Your task to perform on an android device: Show me productivity apps on the Play Store Image 0: 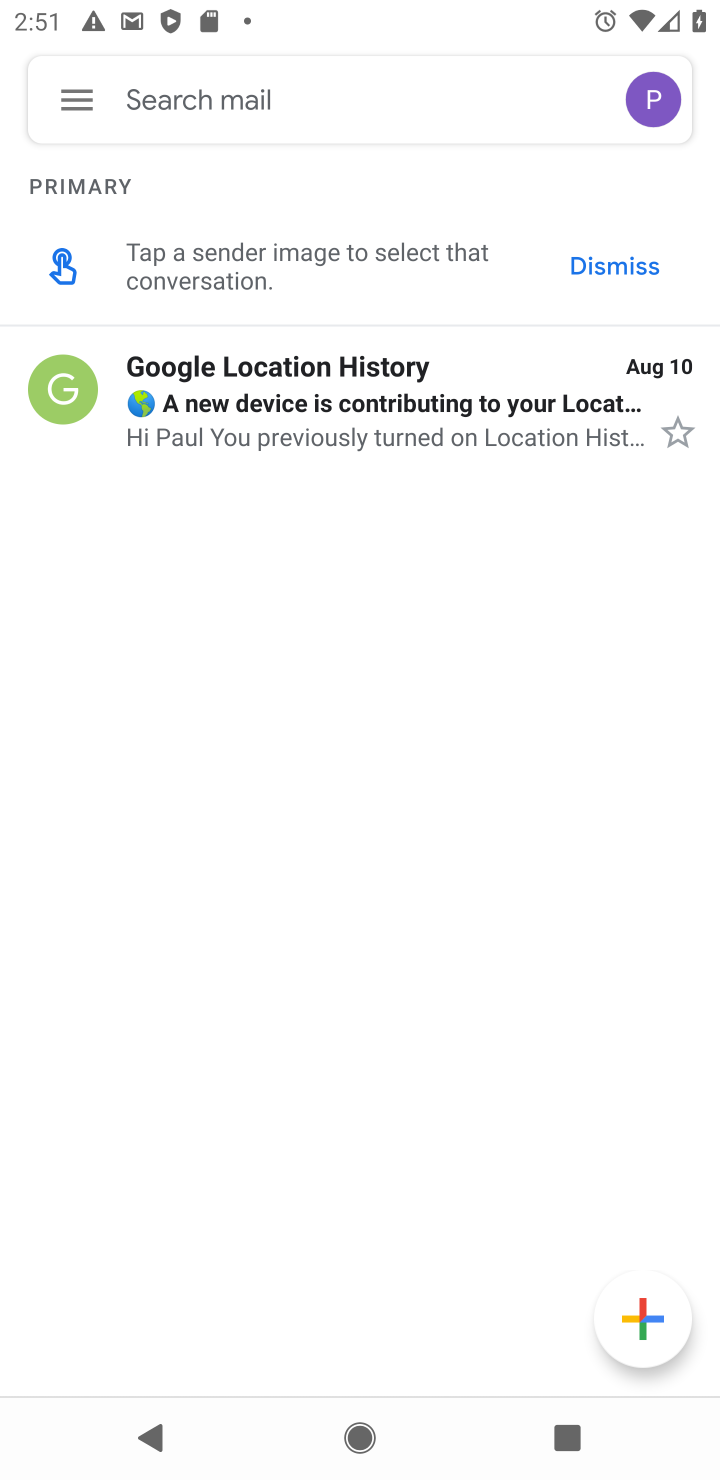
Step 0: press home button
Your task to perform on an android device: Show me productivity apps on the Play Store Image 1: 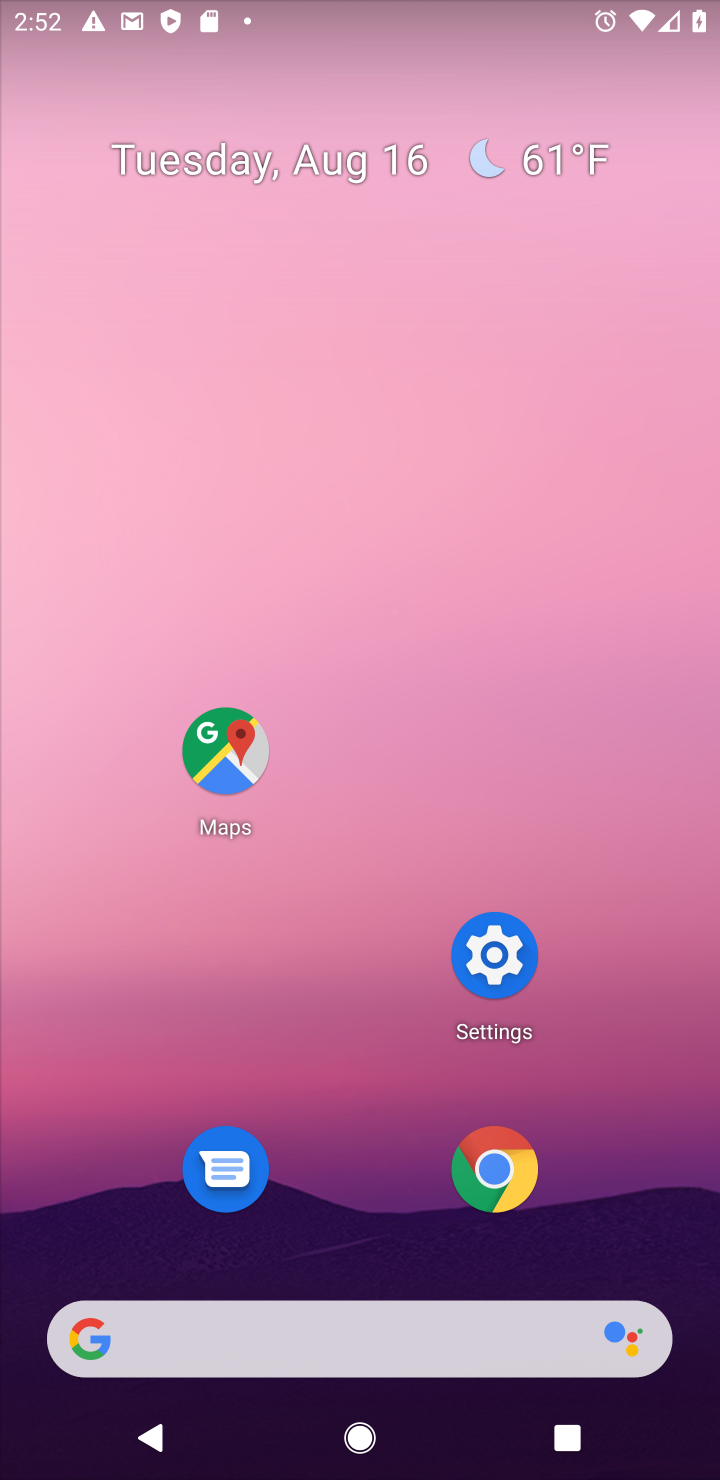
Step 1: drag from (414, 1119) to (699, 178)
Your task to perform on an android device: Show me productivity apps on the Play Store Image 2: 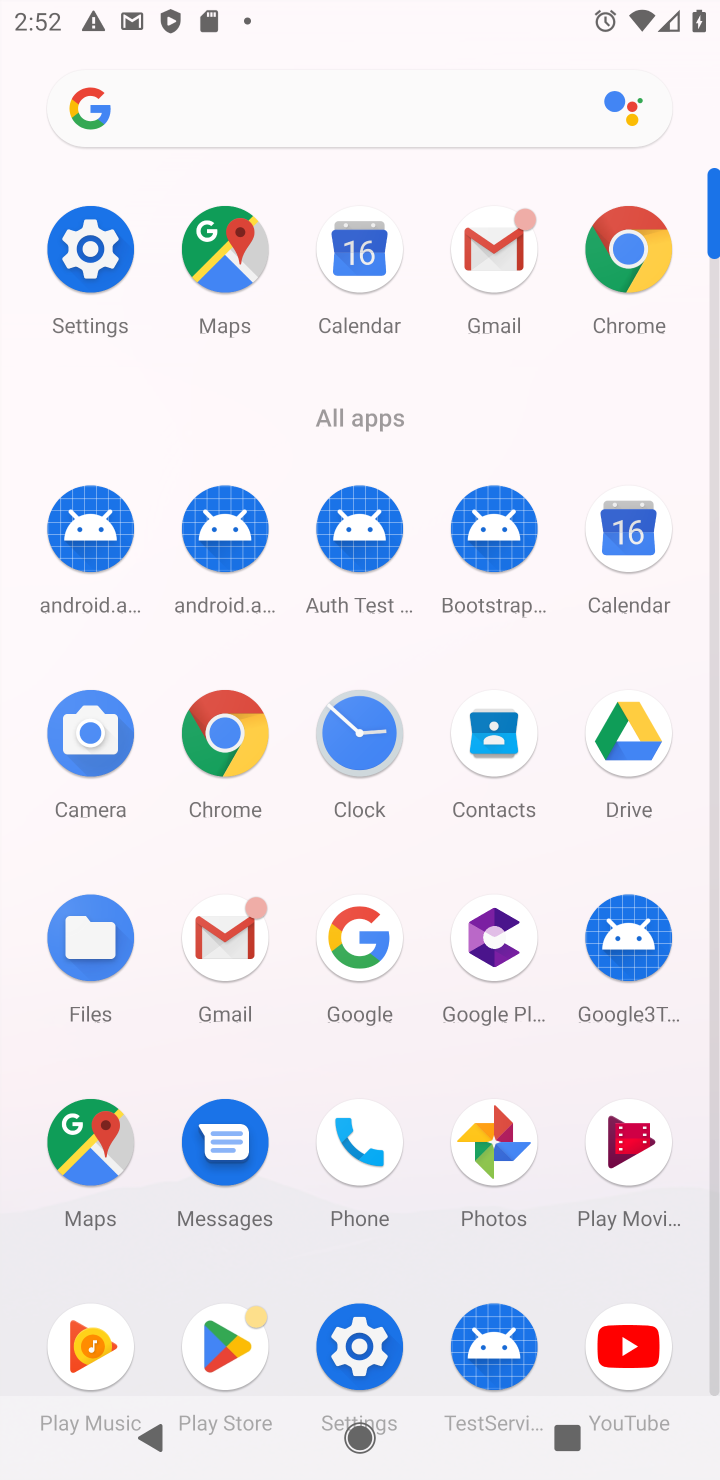
Step 2: click (221, 1336)
Your task to perform on an android device: Show me productivity apps on the Play Store Image 3: 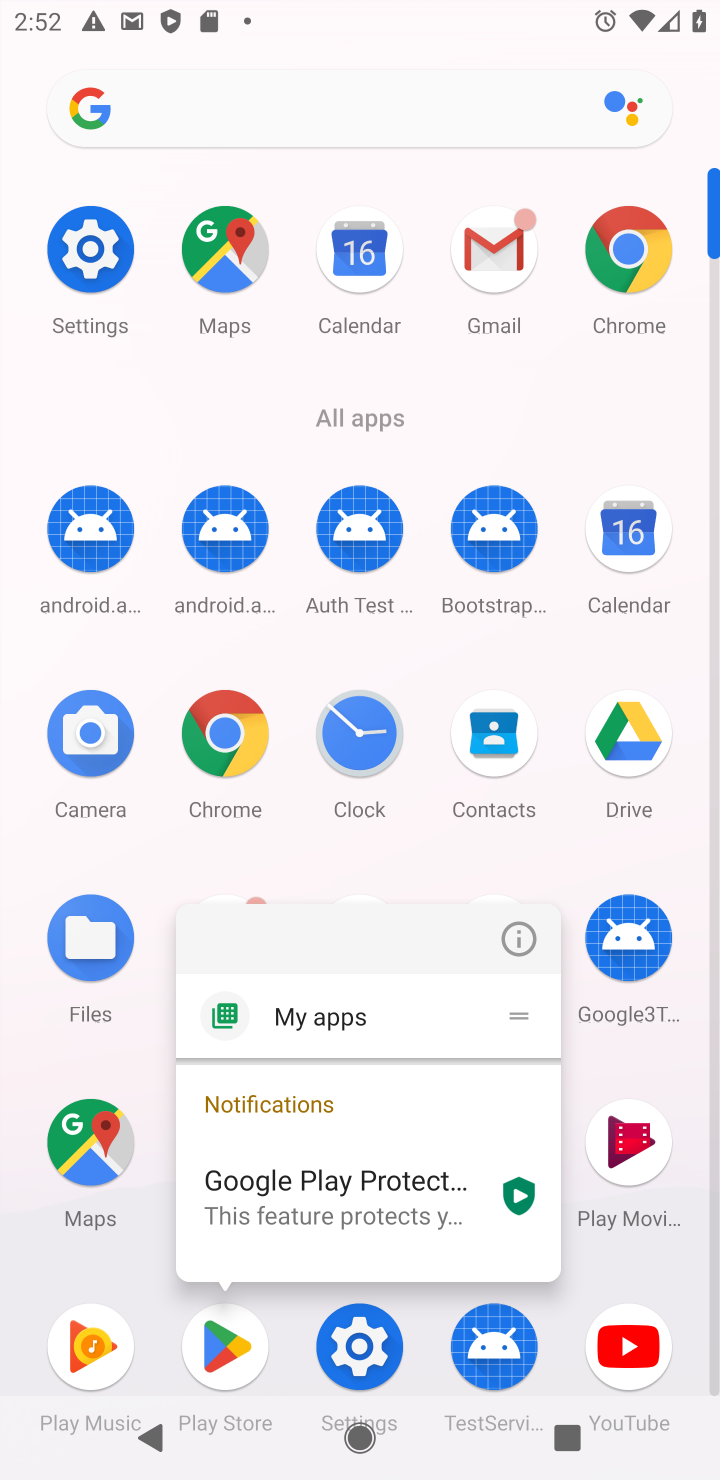
Step 3: click (210, 1345)
Your task to perform on an android device: Show me productivity apps on the Play Store Image 4: 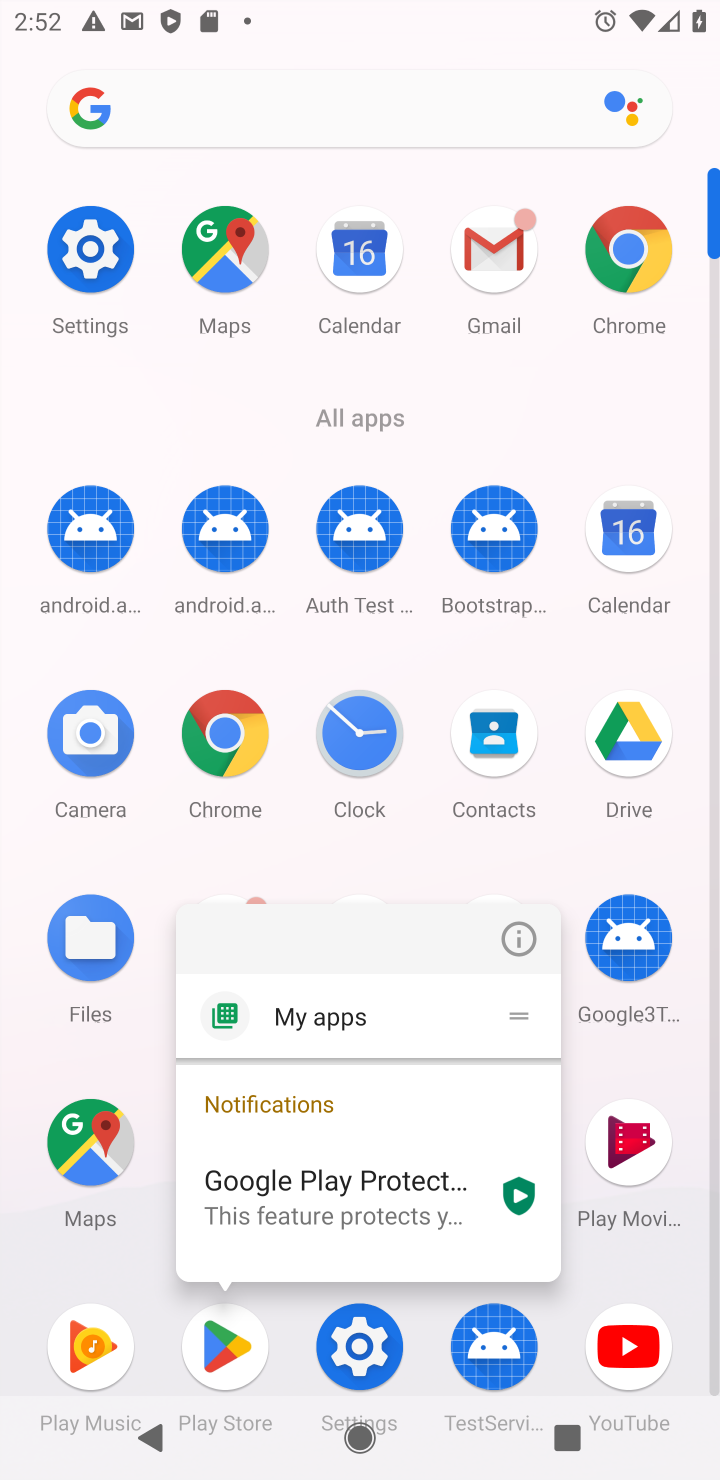
Step 4: click (224, 1325)
Your task to perform on an android device: Show me productivity apps on the Play Store Image 5: 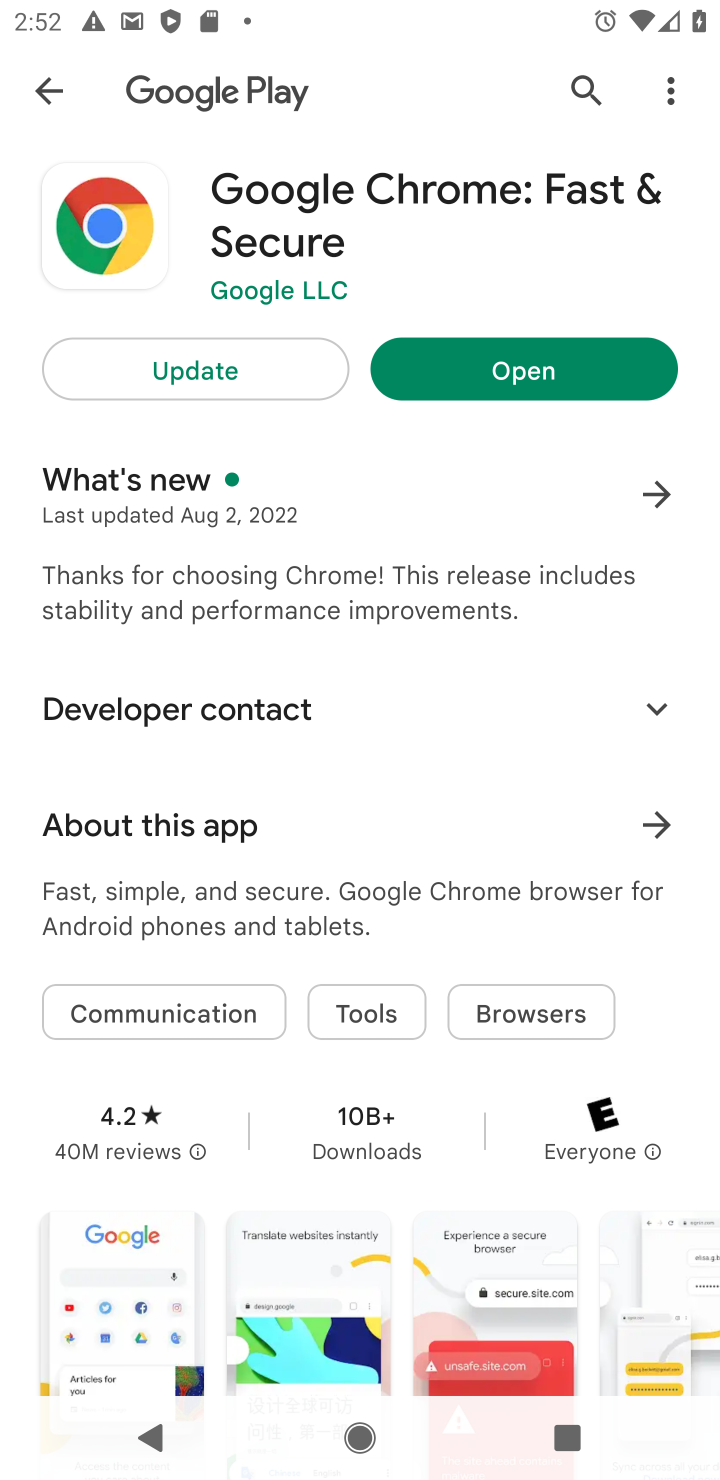
Step 5: click (54, 98)
Your task to perform on an android device: Show me productivity apps on the Play Store Image 6: 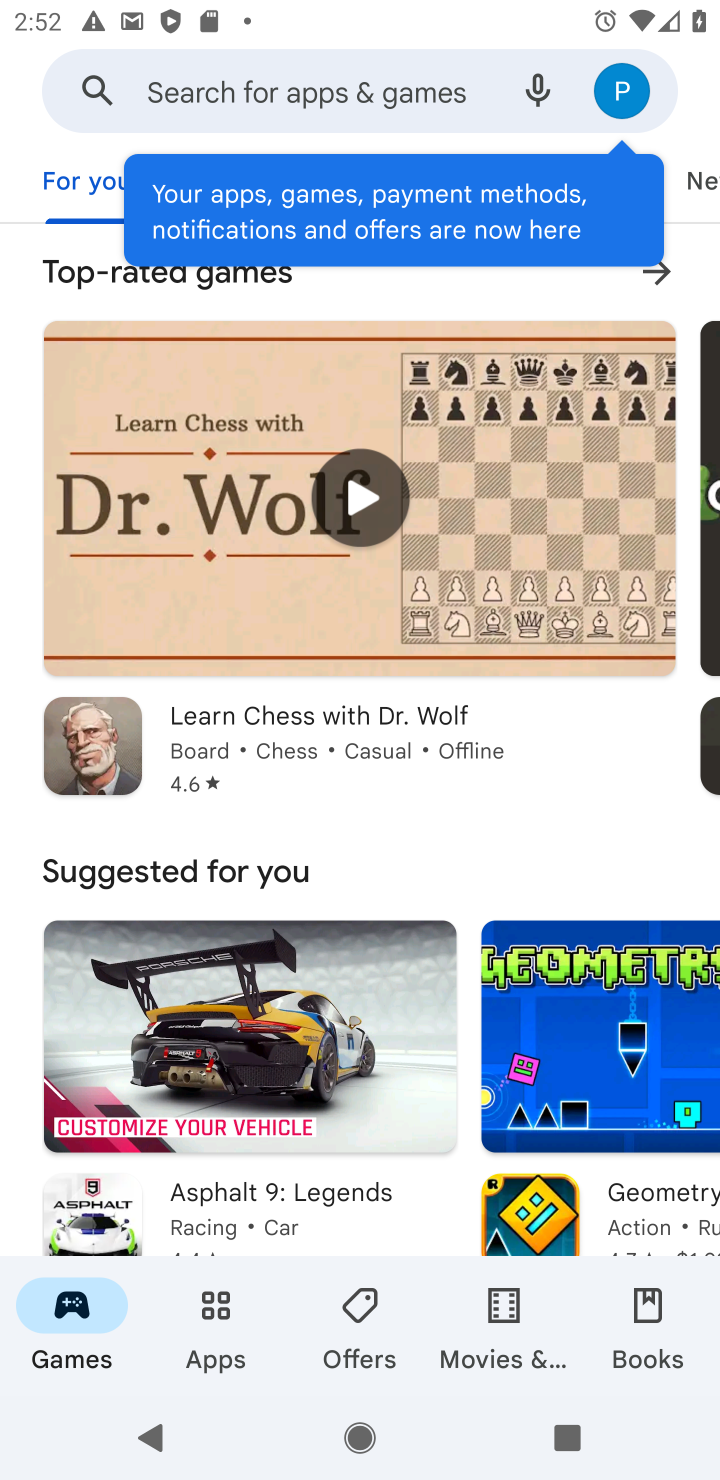
Step 6: click (217, 1333)
Your task to perform on an android device: Show me productivity apps on the Play Store Image 7: 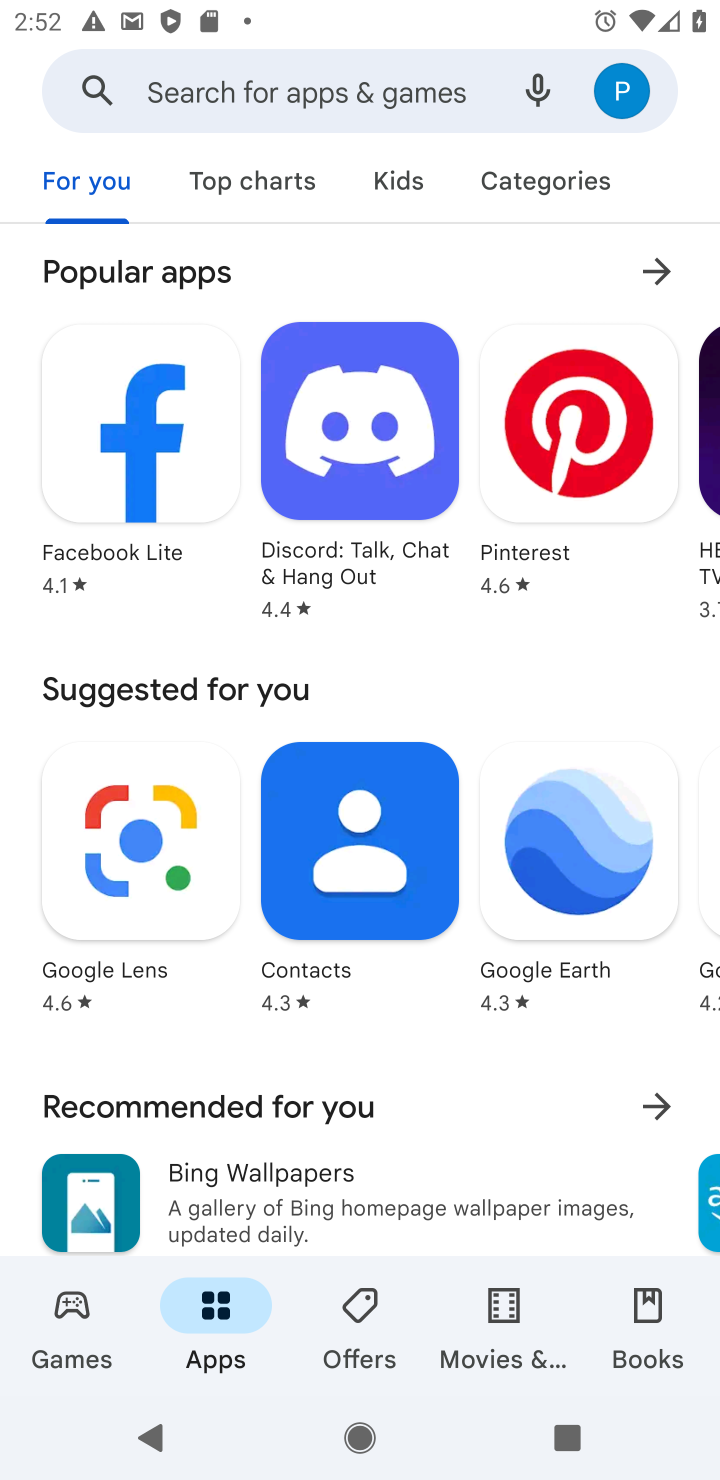
Step 7: click (560, 174)
Your task to perform on an android device: Show me productivity apps on the Play Store Image 8: 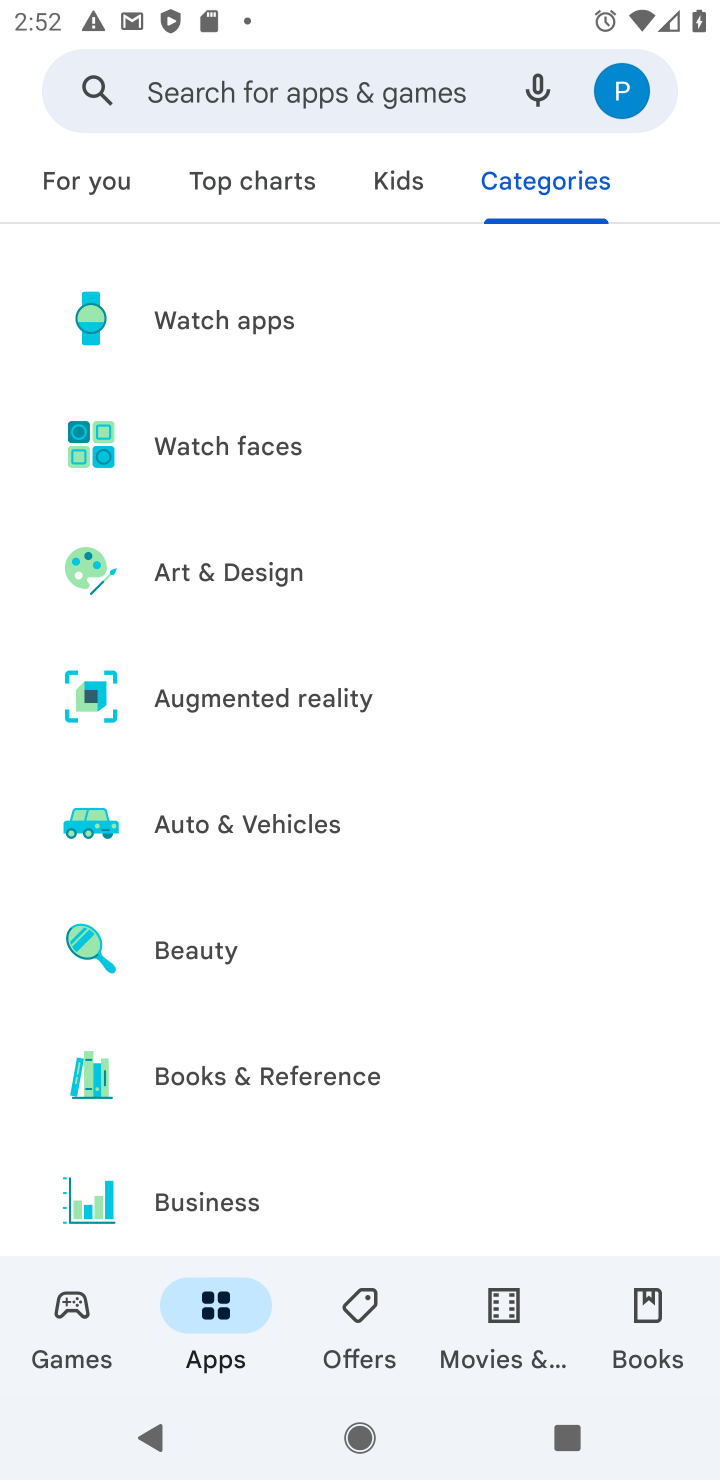
Step 8: drag from (415, 1169) to (571, 216)
Your task to perform on an android device: Show me productivity apps on the Play Store Image 9: 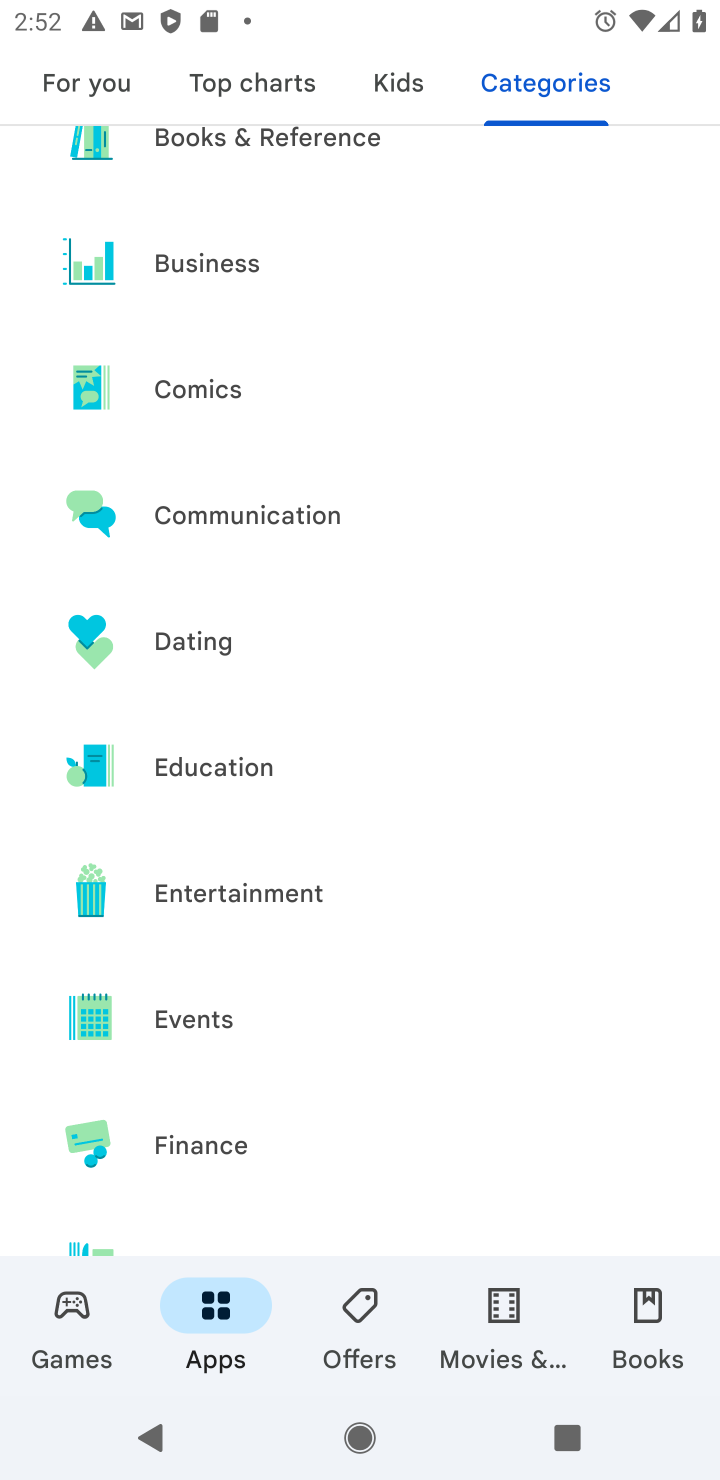
Step 9: drag from (379, 1145) to (629, 88)
Your task to perform on an android device: Show me productivity apps on the Play Store Image 10: 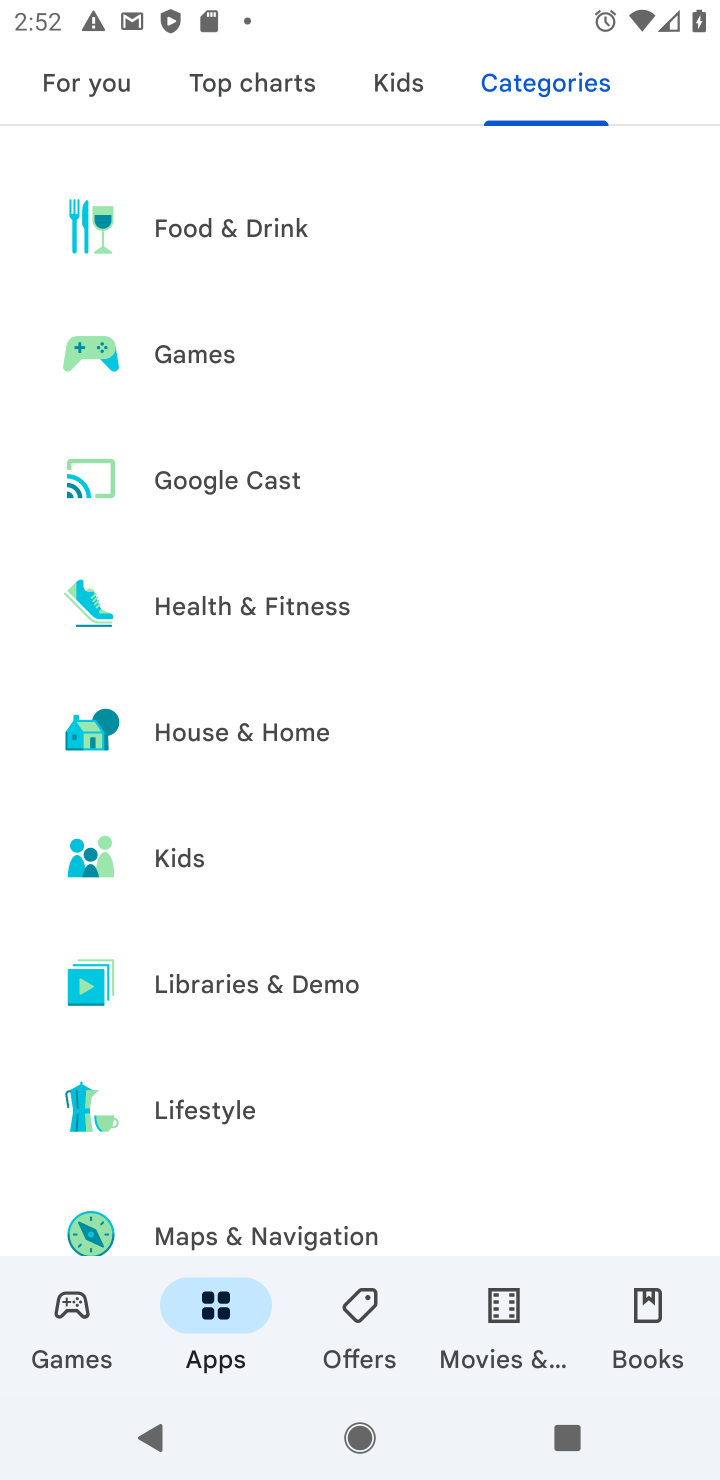
Step 10: drag from (441, 1051) to (625, 112)
Your task to perform on an android device: Show me productivity apps on the Play Store Image 11: 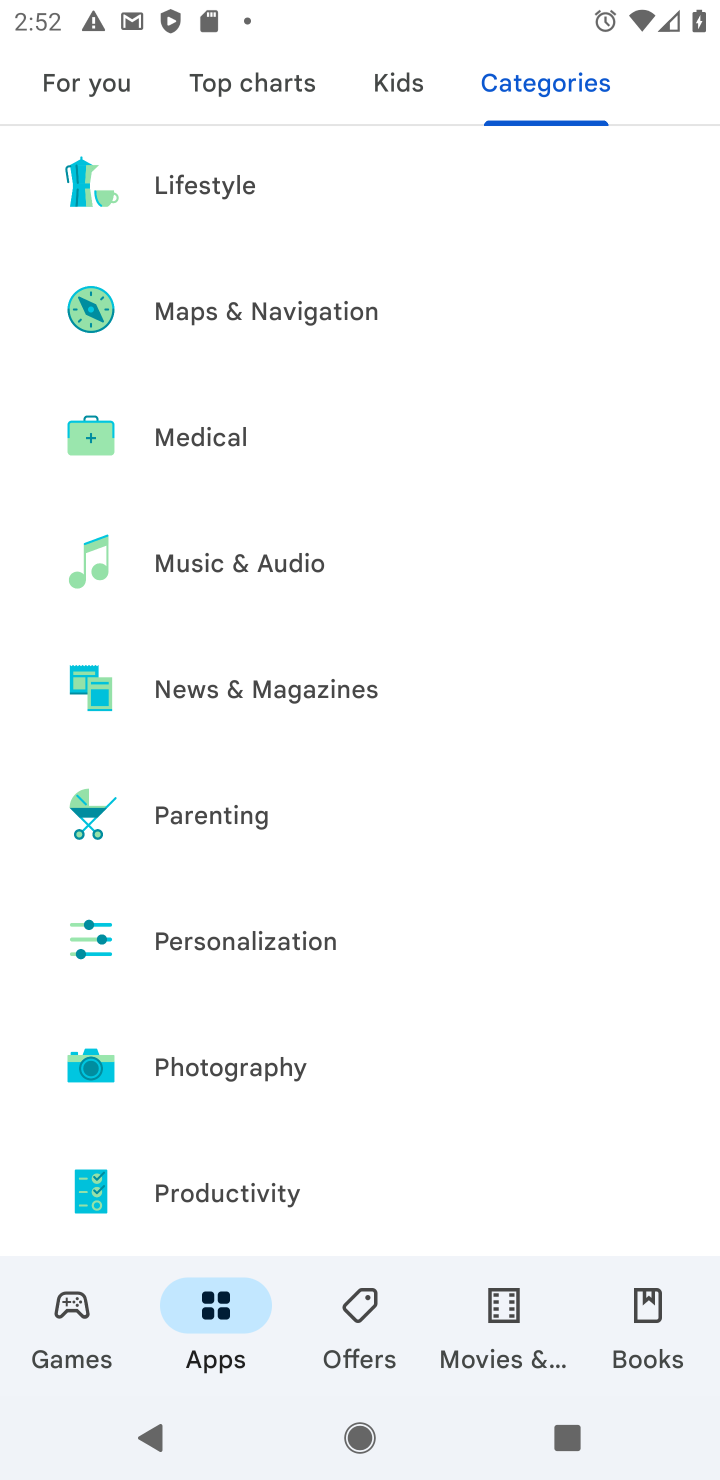
Step 11: click (256, 1183)
Your task to perform on an android device: Show me productivity apps on the Play Store Image 12: 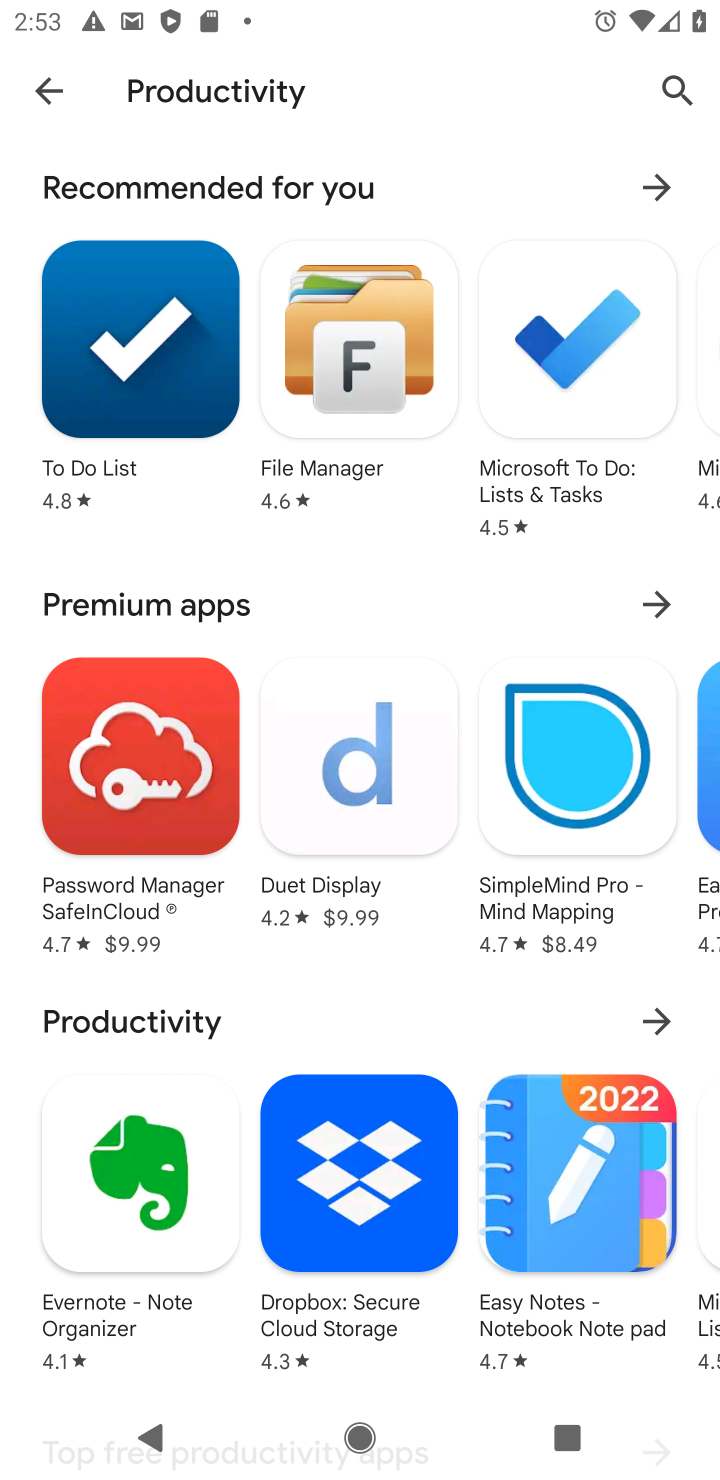
Step 12: task complete